Your task to perform on an android device: Go to Yahoo.com Image 0: 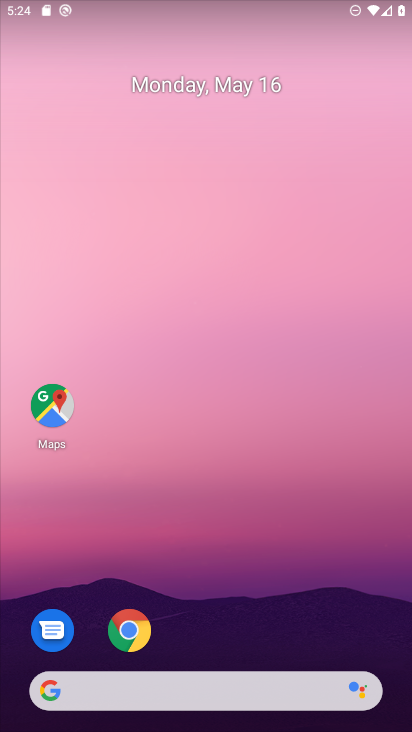
Step 0: press home button
Your task to perform on an android device: Go to Yahoo.com Image 1: 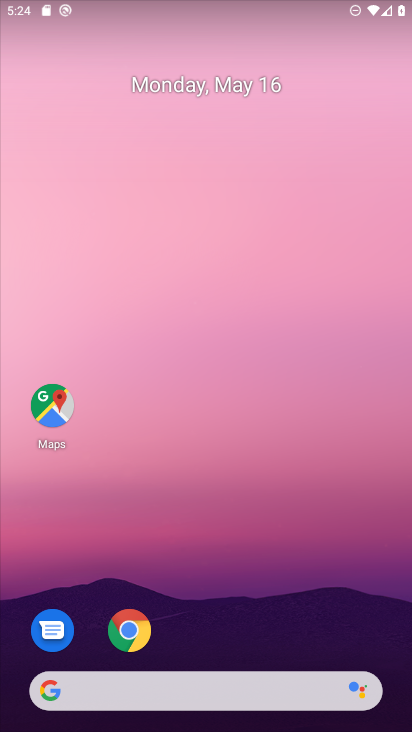
Step 1: click (140, 657)
Your task to perform on an android device: Go to Yahoo.com Image 2: 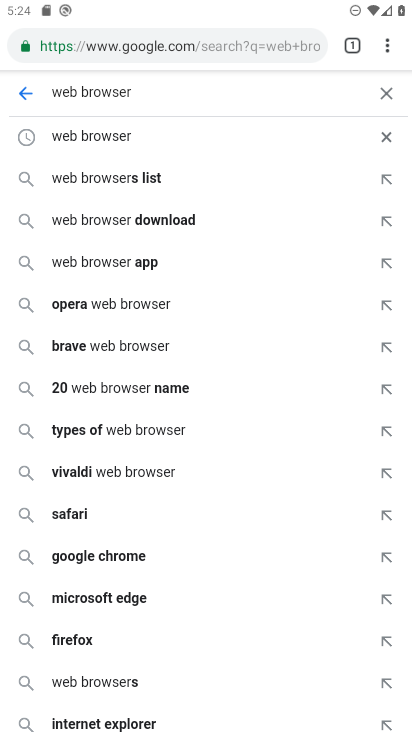
Step 2: click (261, 49)
Your task to perform on an android device: Go to Yahoo.com Image 3: 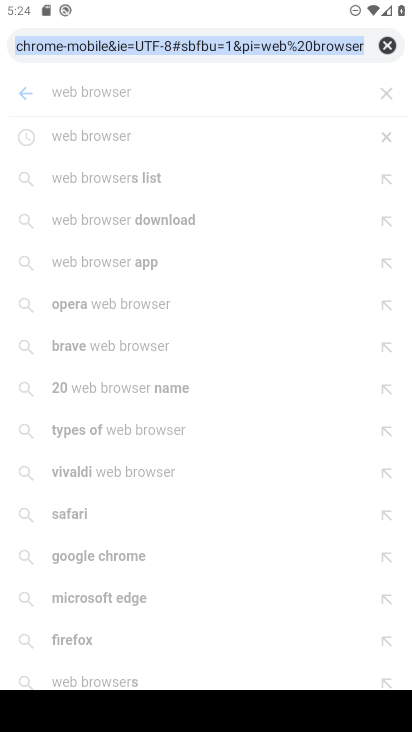
Step 3: click (380, 51)
Your task to perform on an android device: Go to Yahoo.com Image 4: 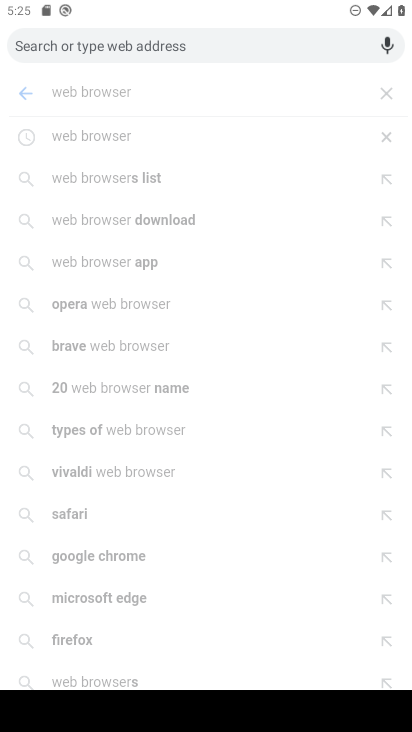
Step 4: type " Yahoo.com"
Your task to perform on an android device: Go to Yahoo.com Image 5: 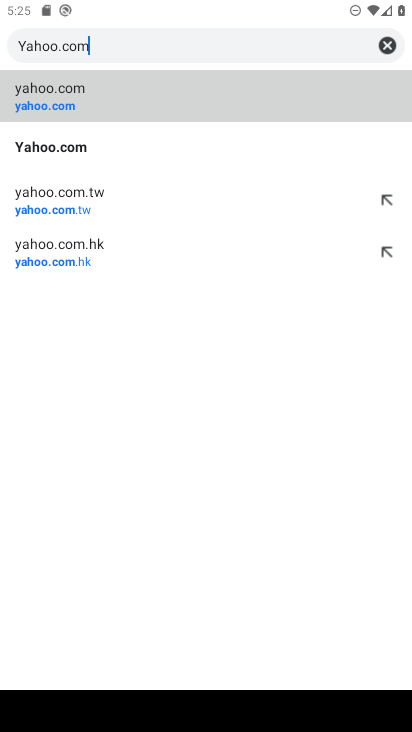
Step 5: click (212, 96)
Your task to perform on an android device: Go to Yahoo.com Image 6: 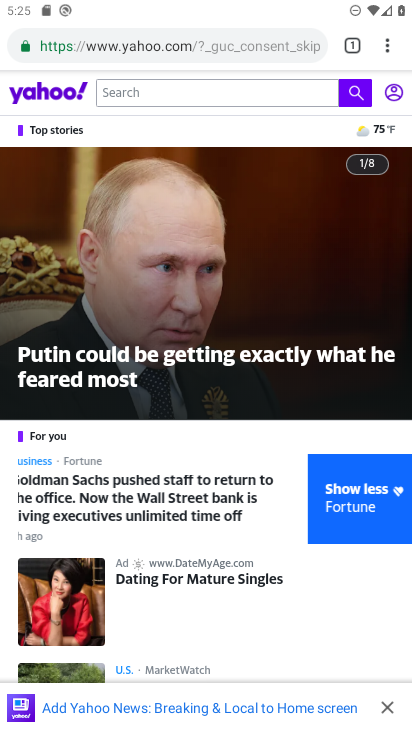
Step 6: task complete